Your task to perform on an android device: stop showing notifications on the lock screen Image 0: 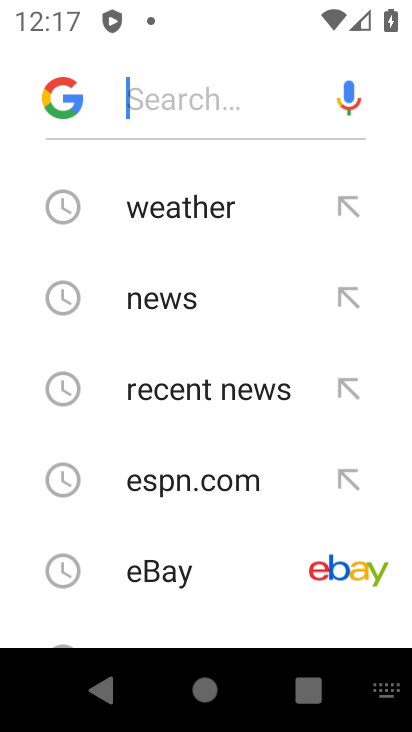
Step 0: press back button
Your task to perform on an android device: stop showing notifications on the lock screen Image 1: 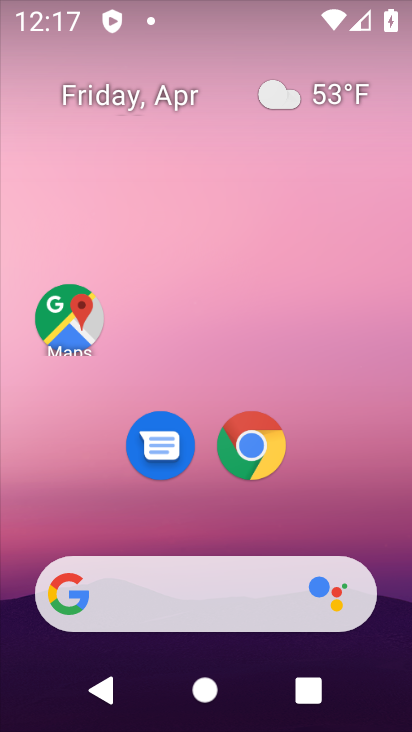
Step 1: drag from (282, 493) to (314, 6)
Your task to perform on an android device: stop showing notifications on the lock screen Image 2: 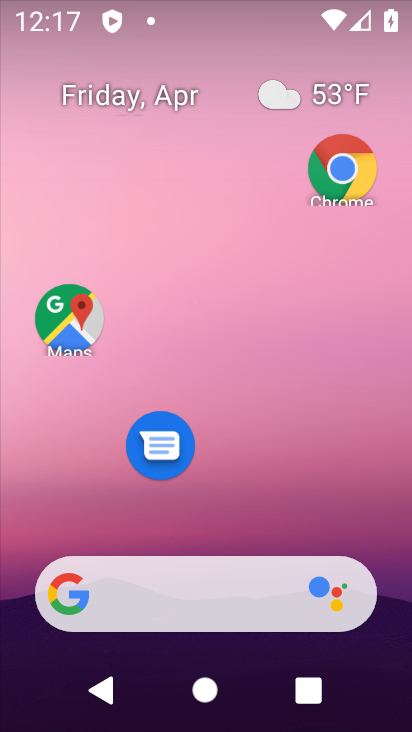
Step 2: drag from (271, 513) to (325, 80)
Your task to perform on an android device: stop showing notifications on the lock screen Image 3: 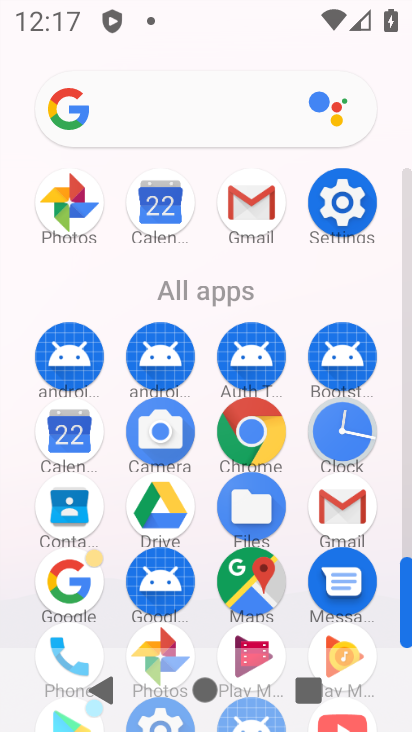
Step 3: click (341, 197)
Your task to perform on an android device: stop showing notifications on the lock screen Image 4: 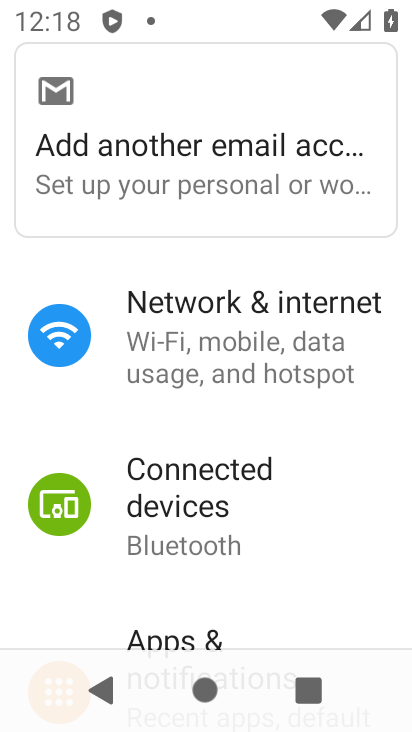
Step 4: drag from (300, 560) to (300, 292)
Your task to perform on an android device: stop showing notifications on the lock screen Image 5: 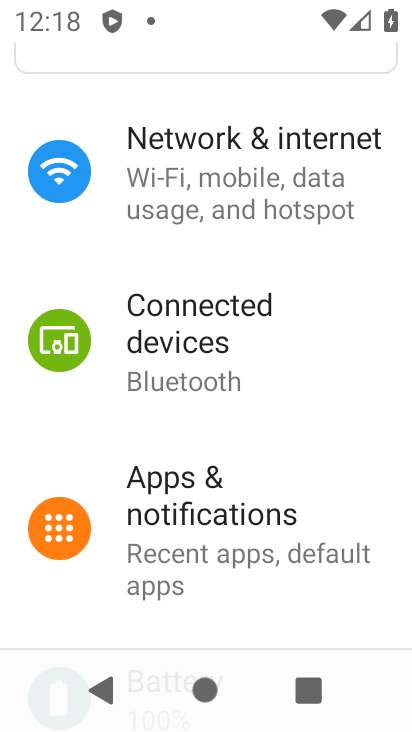
Step 5: drag from (289, 412) to (290, 361)
Your task to perform on an android device: stop showing notifications on the lock screen Image 6: 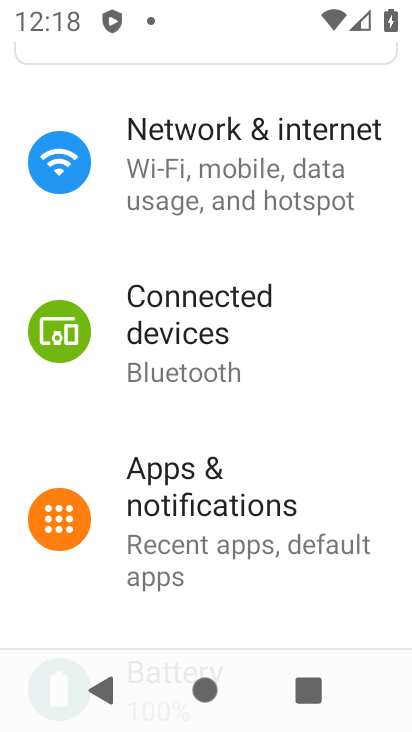
Step 6: click (237, 487)
Your task to perform on an android device: stop showing notifications on the lock screen Image 7: 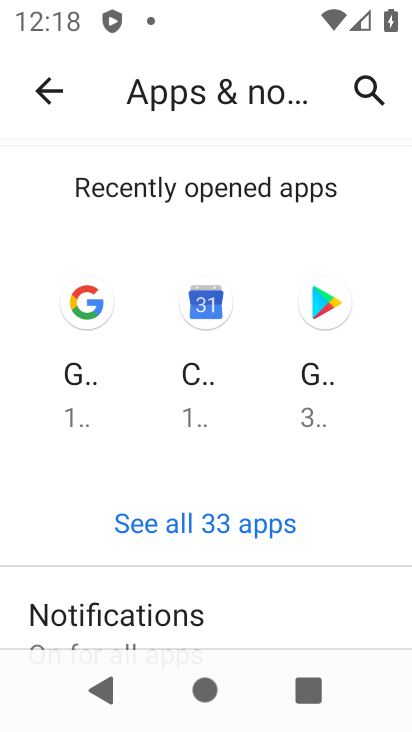
Step 7: drag from (126, 522) to (176, 237)
Your task to perform on an android device: stop showing notifications on the lock screen Image 8: 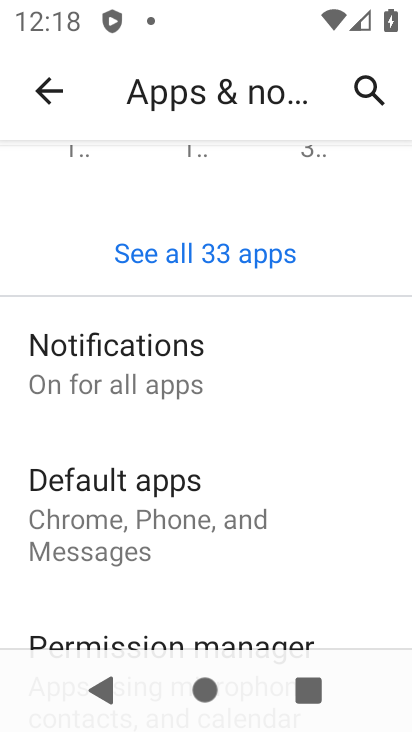
Step 8: drag from (130, 555) to (214, 149)
Your task to perform on an android device: stop showing notifications on the lock screen Image 9: 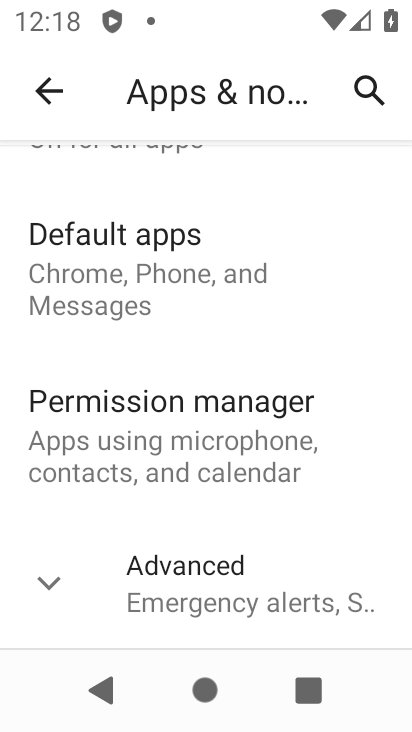
Step 9: click (199, 155)
Your task to perform on an android device: stop showing notifications on the lock screen Image 10: 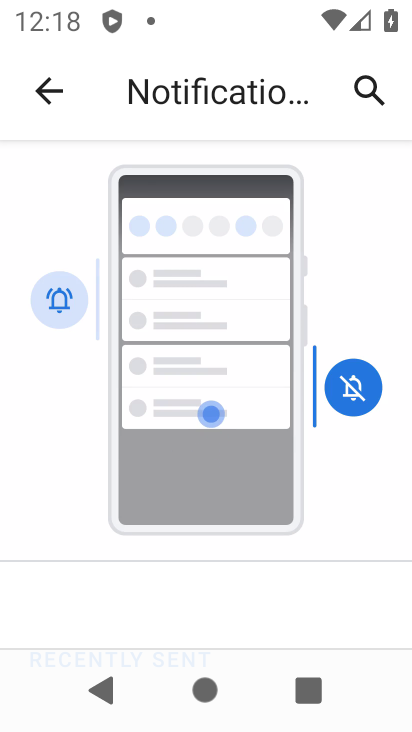
Step 10: drag from (194, 526) to (242, 183)
Your task to perform on an android device: stop showing notifications on the lock screen Image 11: 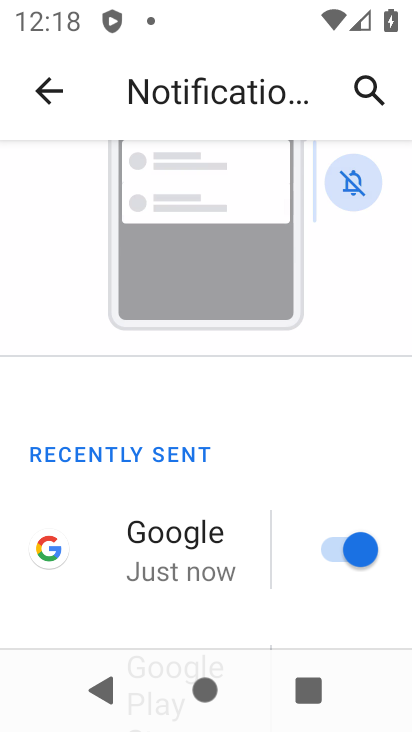
Step 11: drag from (212, 507) to (236, 160)
Your task to perform on an android device: stop showing notifications on the lock screen Image 12: 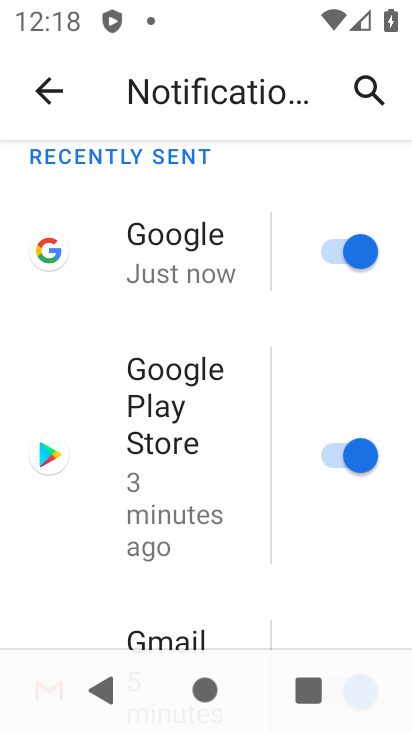
Step 12: drag from (159, 583) to (208, 185)
Your task to perform on an android device: stop showing notifications on the lock screen Image 13: 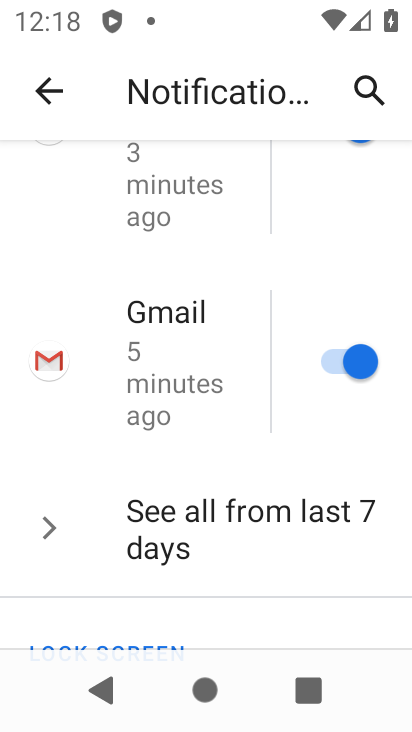
Step 13: drag from (175, 500) to (209, 266)
Your task to perform on an android device: stop showing notifications on the lock screen Image 14: 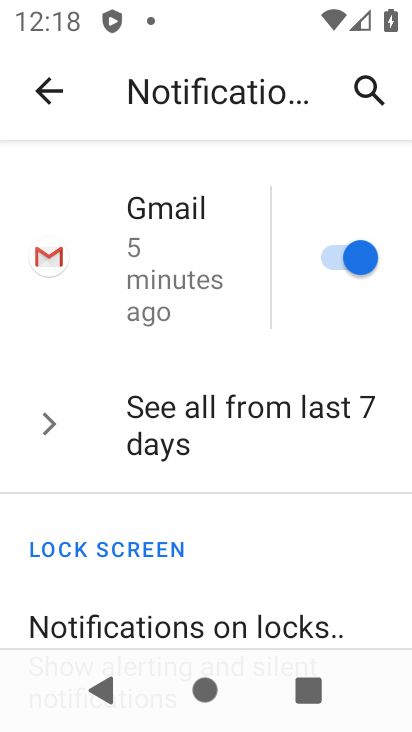
Step 14: click (117, 592)
Your task to perform on an android device: stop showing notifications on the lock screen Image 15: 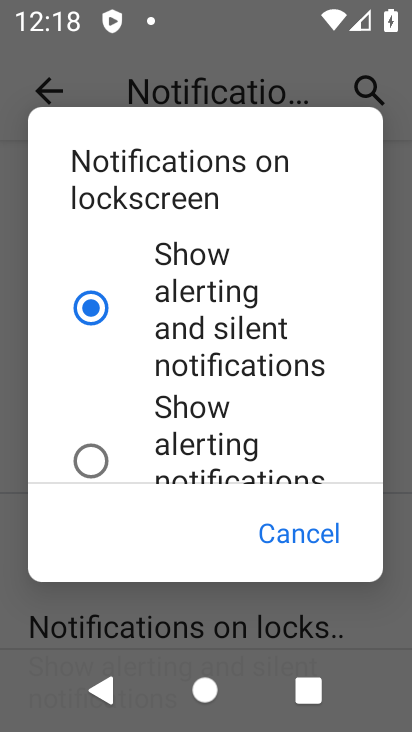
Step 15: drag from (199, 356) to (221, 164)
Your task to perform on an android device: stop showing notifications on the lock screen Image 16: 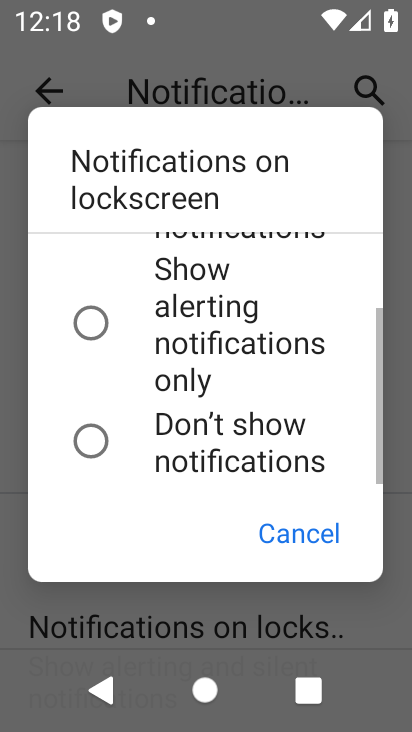
Step 16: click (186, 430)
Your task to perform on an android device: stop showing notifications on the lock screen Image 17: 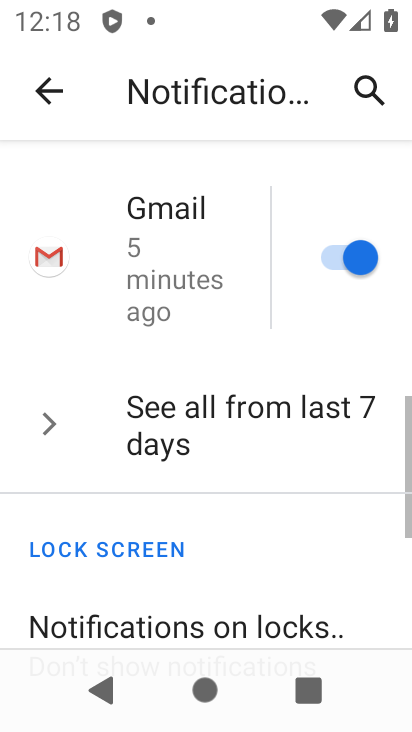
Step 17: task complete